Your task to perform on an android device: toggle data saver in the chrome app Image 0: 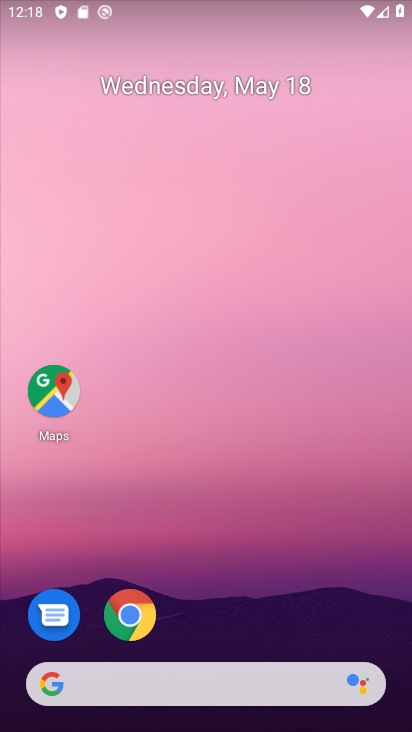
Step 0: click (146, 621)
Your task to perform on an android device: toggle data saver in the chrome app Image 1: 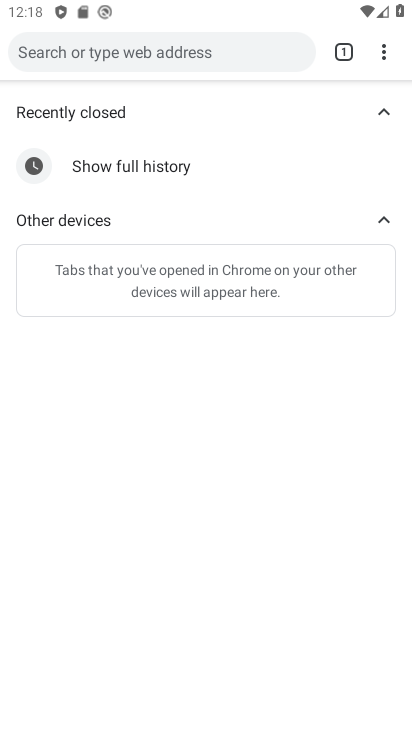
Step 1: click (383, 54)
Your task to perform on an android device: toggle data saver in the chrome app Image 2: 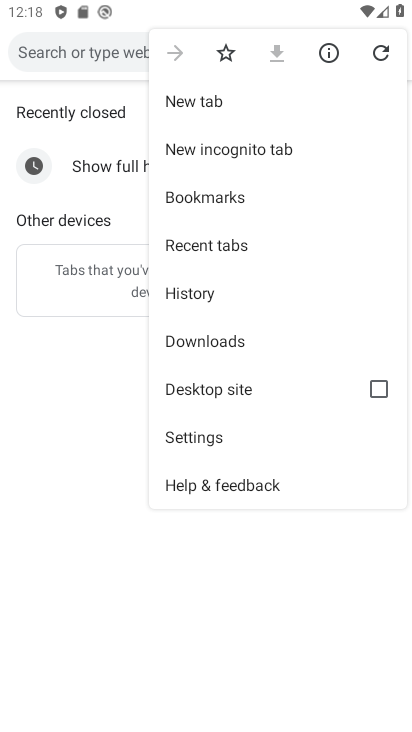
Step 2: click (202, 441)
Your task to perform on an android device: toggle data saver in the chrome app Image 3: 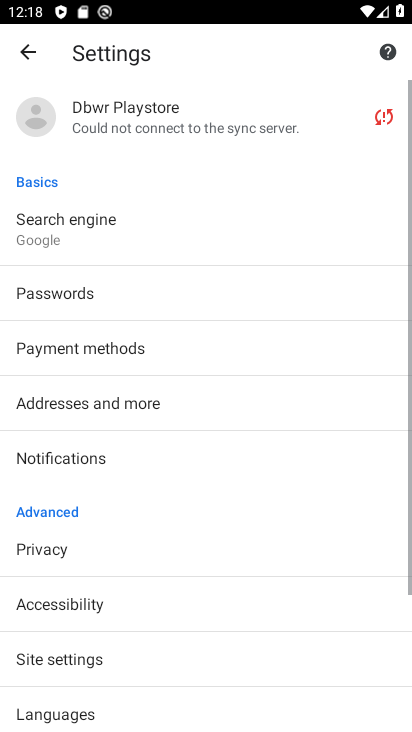
Step 3: drag from (112, 646) to (117, 449)
Your task to perform on an android device: toggle data saver in the chrome app Image 4: 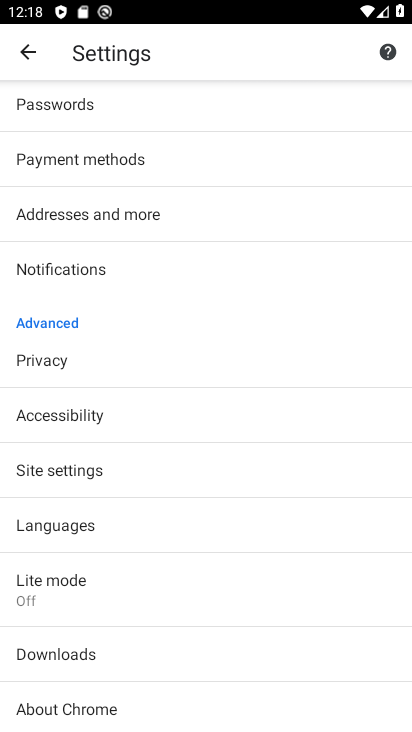
Step 4: click (69, 584)
Your task to perform on an android device: toggle data saver in the chrome app Image 5: 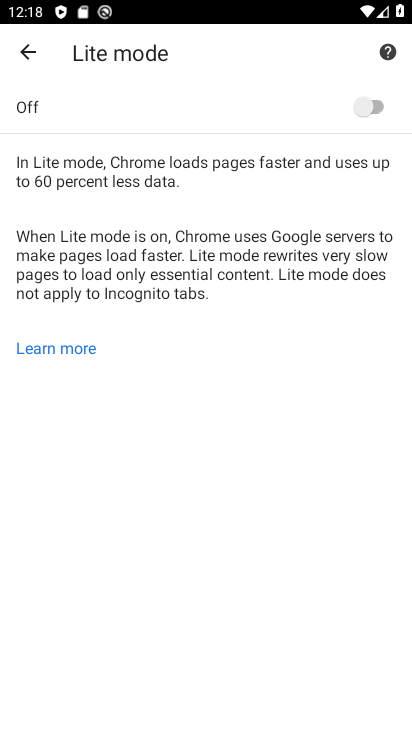
Step 5: click (373, 106)
Your task to perform on an android device: toggle data saver in the chrome app Image 6: 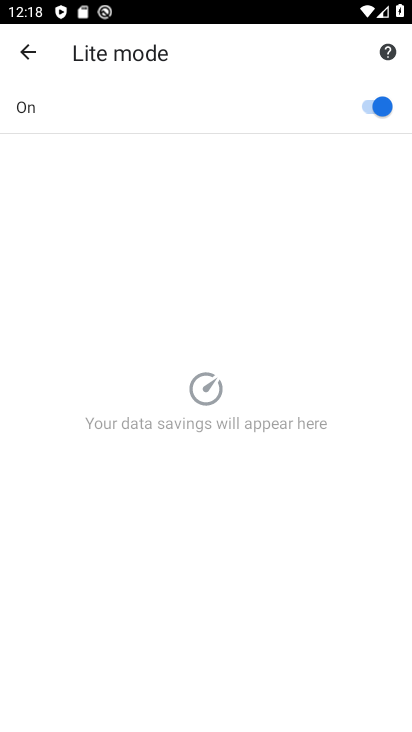
Step 6: task complete